Your task to perform on an android device: toggle airplane mode Image 0: 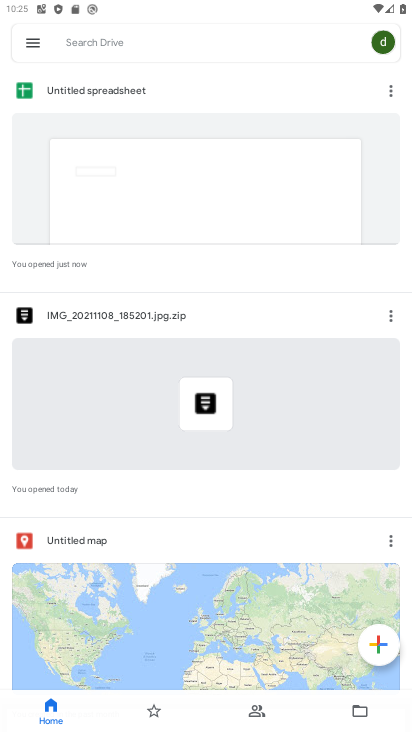
Step 0: drag from (360, 5) to (373, 631)
Your task to perform on an android device: toggle airplane mode Image 1: 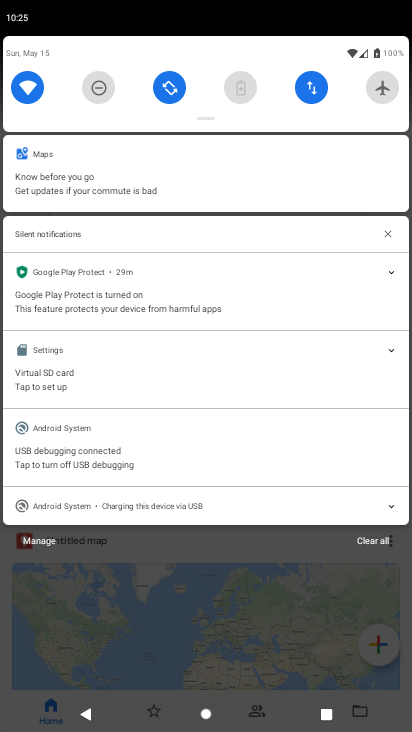
Step 1: click (374, 87)
Your task to perform on an android device: toggle airplane mode Image 2: 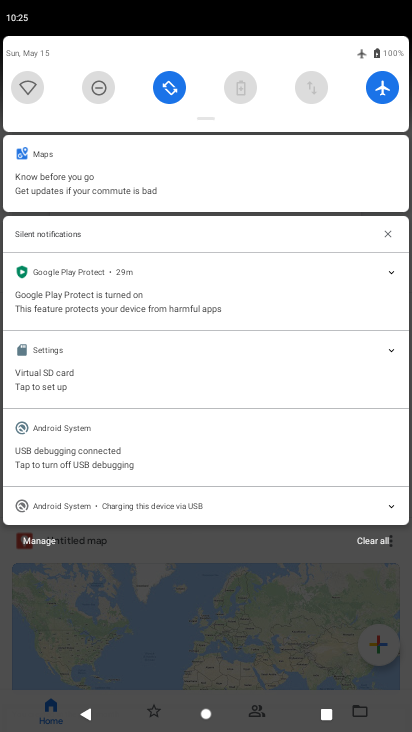
Step 2: task complete